Your task to perform on an android device: change your default location settings in chrome Image 0: 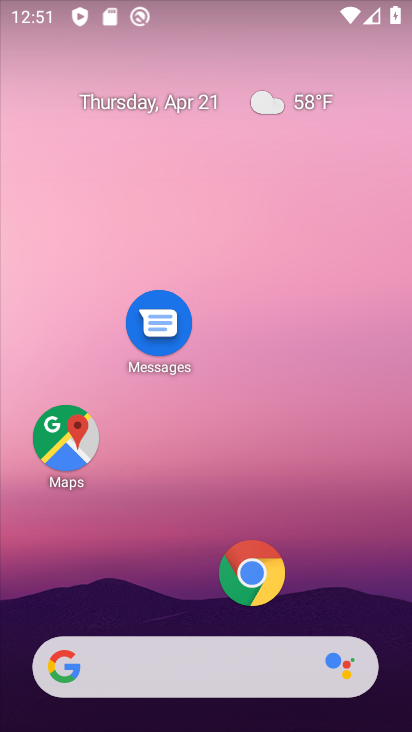
Step 0: drag from (156, 572) to (153, 160)
Your task to perform on an android device: change your default location settings in chrome Image 1: 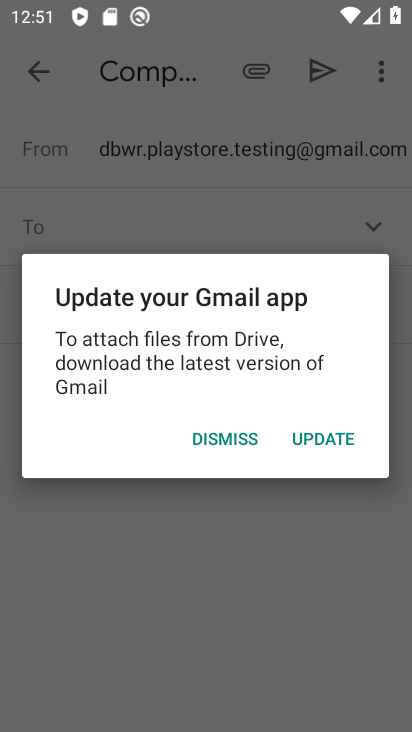
Step 1: press home button
Your task to perform on an android device: change your default location settings in chrome Image 2: 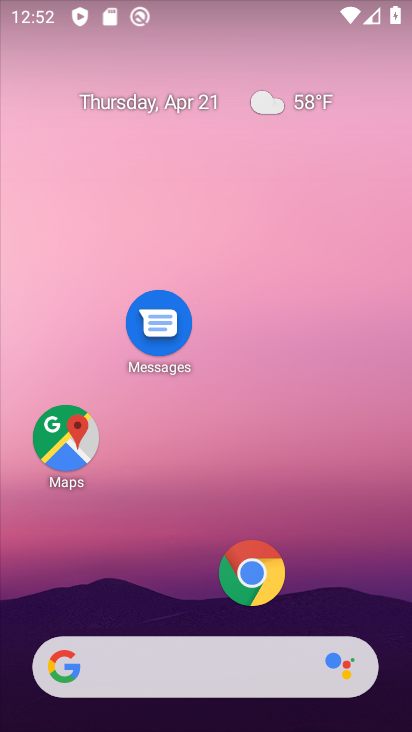
Step 2: click (257, 567)
Your task to perform on an android device: change your default location settings in chrome Image 3: 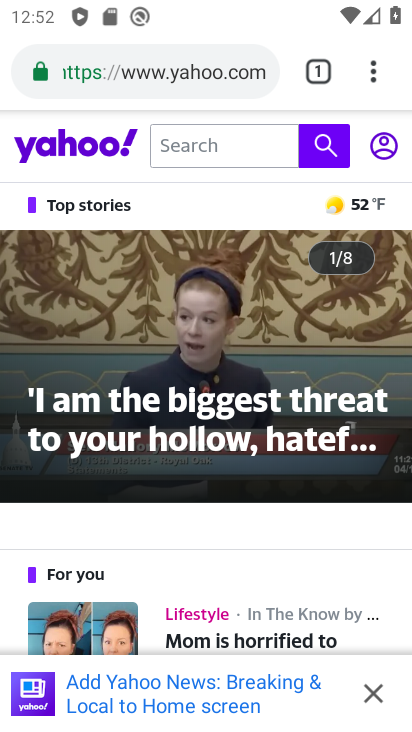
Step 3: click (369, 66)
Your task to perform on an android device: change your default location settings in chrome Image 4: 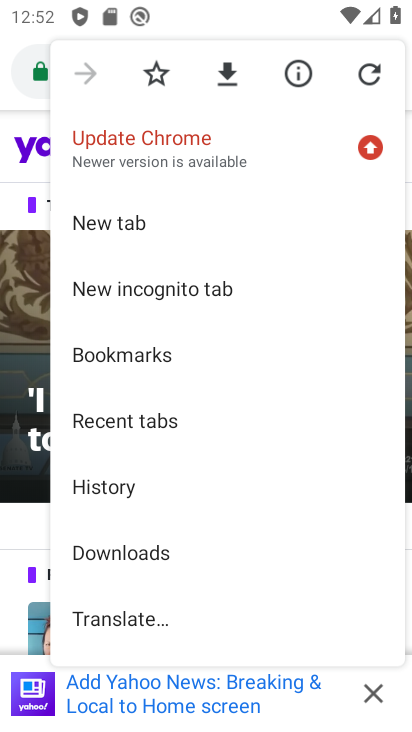
Step 4: drag from (262, 578) to (288, 110)
Your task to perform on an android device: change your default location settings in chrome Image 5: 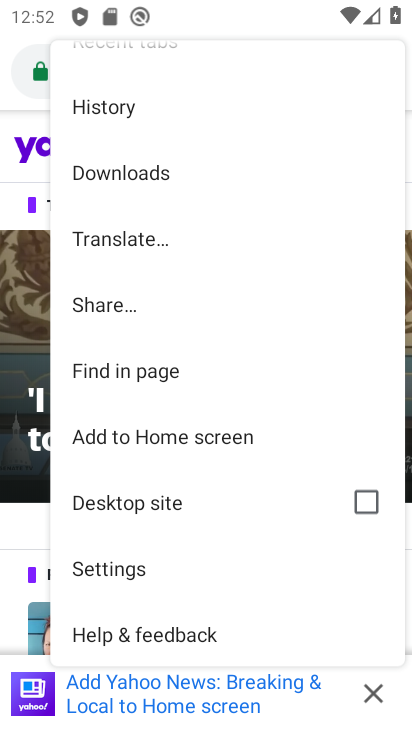
Step 5: click (95, 571)
Your task to perform on an android device: change your default location settings in chrome Image 6: 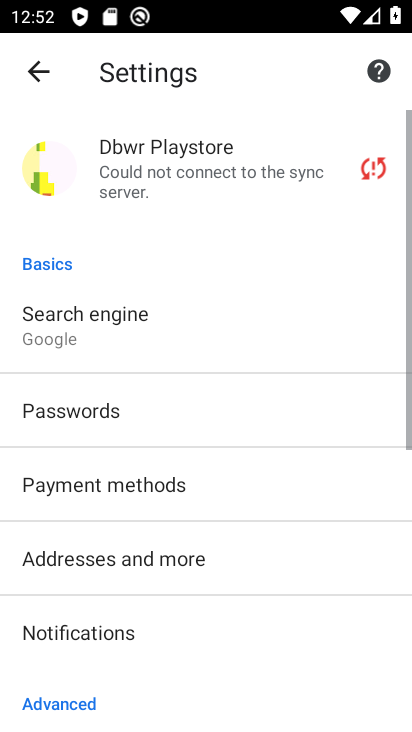
Step 6: drag from (191, 619) to (187, 227)
Your task to perform on an android device: change your default location settings in chrome Image 7: 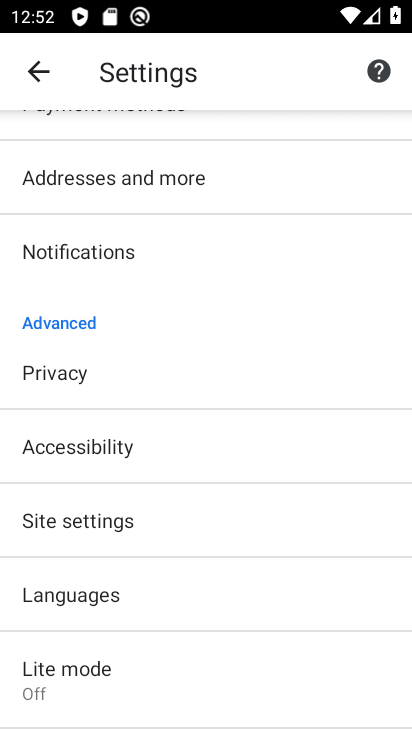
Step 7: click (88, 525)
Your task to perform on an android device: change your default location settings in chrome Image 8: 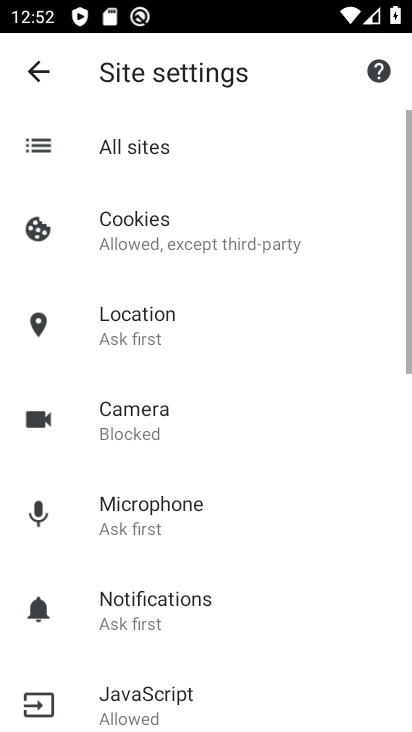
Step 8: drag from (239, 552) to (240, 154)
Your task to perform on an android device: change your default location settings in chrome Image 9: 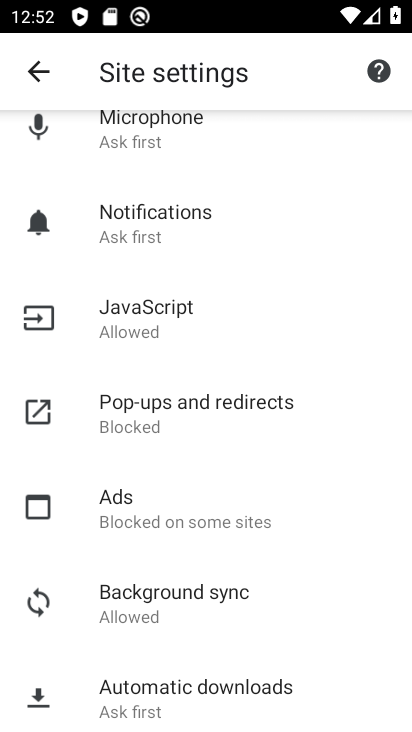
Step 9: drag from (210, 214) to (251, 586)
Your task to perform on an android device: change your default location settings in chrome Image 10: 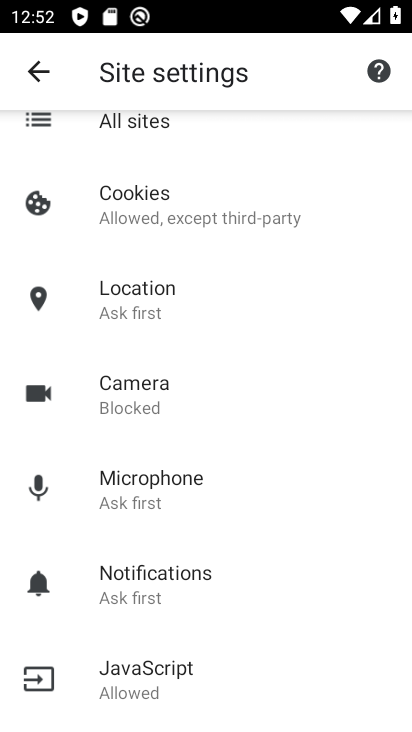
Step 10: click (158, 298)
Your task to perform on an android device: change your default location settings in chrome Image 11: 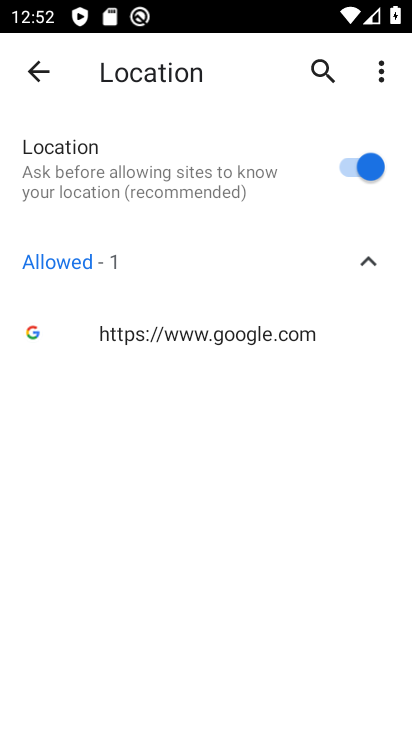
Step 11: click (351, 181)
Your task to perform on an android device: change your default location settings in chrome Image 12: 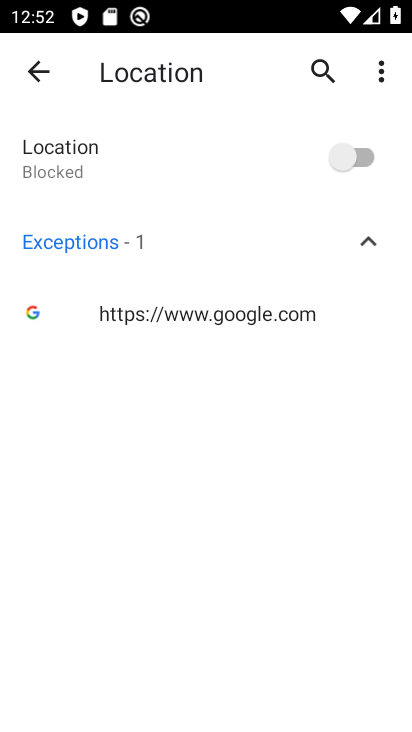
Step 12: task complete